Your task to perform on an android device: change the clock display to show seconds Image 0: 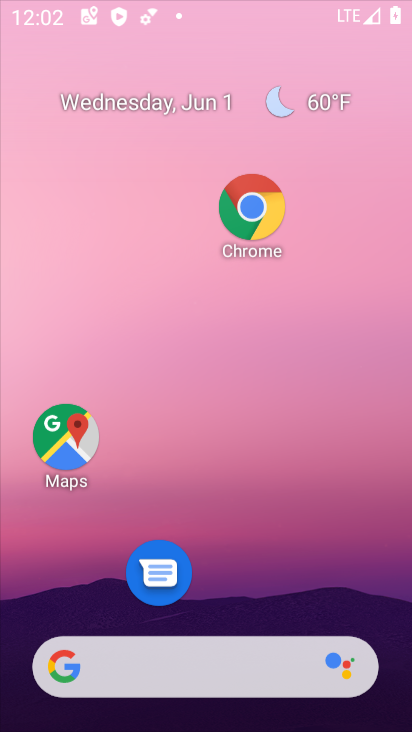
Step 0: click (197, 245)
Your task to perform on an android device: change the clock display to show seconds Image 1: 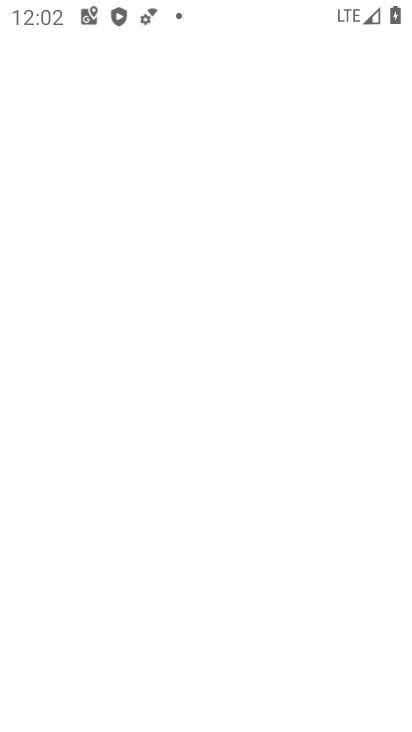
Step 1: press home button
Your task to perform on an android device: change the clock display to show seconds Image 2: 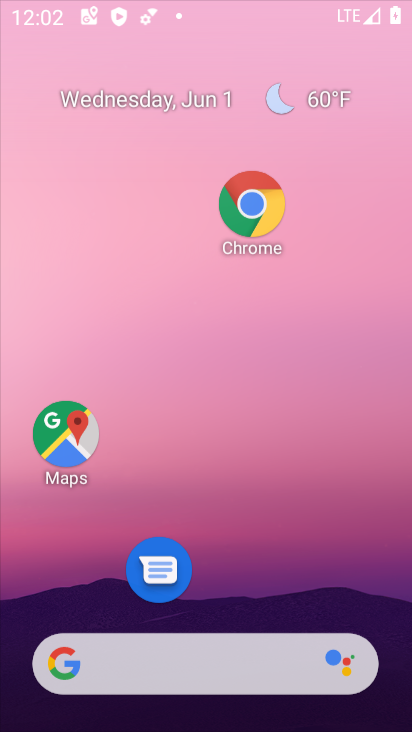
Step 2: click (196, 166)
Your task to perform on an android device: change the clock display to show seconds Image 3: 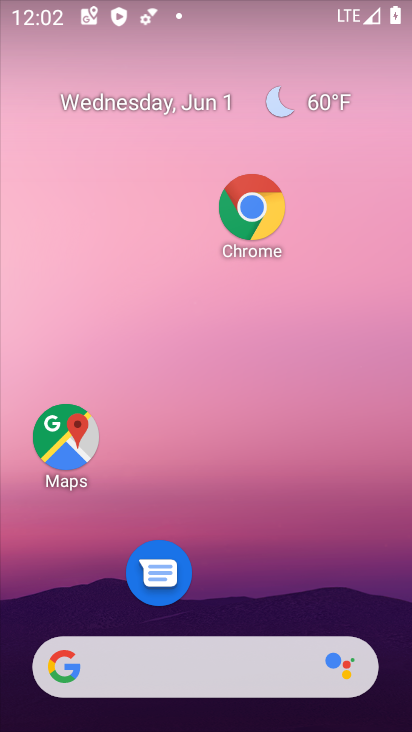
Step 3: drag from (209, 578) to (189, 119)
Your task to perform on an android device: change the clock display to show seconds Image 4: 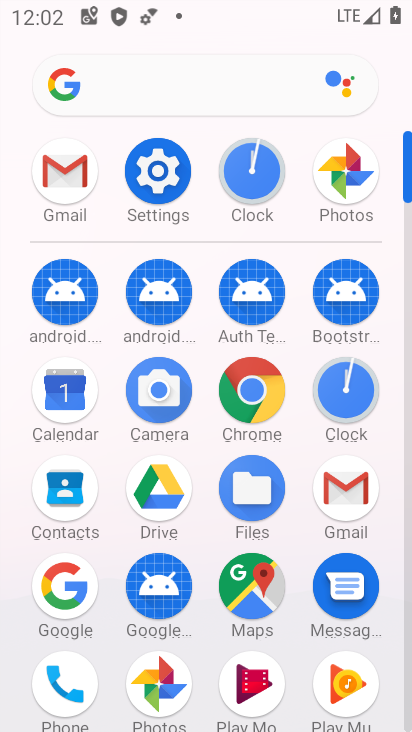
Step 4: click (340, 401)
Your task to perform on an android device: change the clock display to show seconds Image 5: 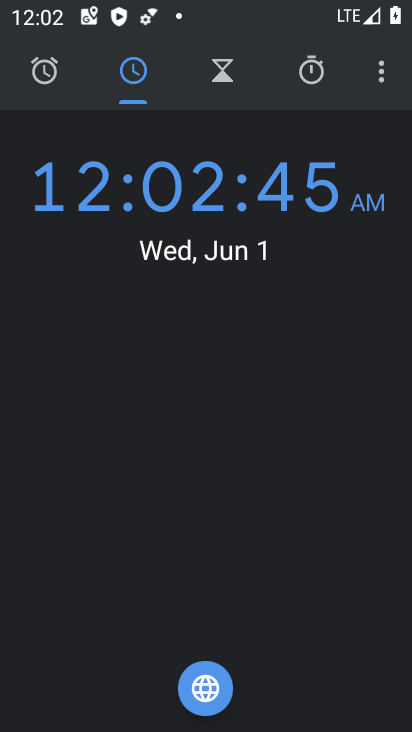
Step 5: click (376, 65)
Your task to perform on an android device: change the clock display to show seconds Image 6: 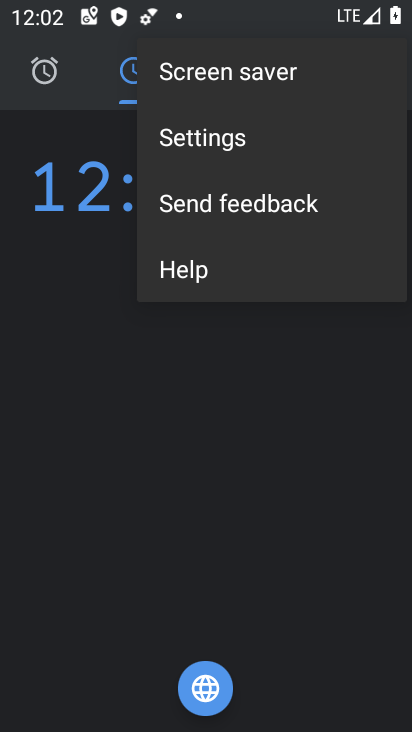
Step 6: click (313, 145)
Your task to perform on an android device: change the clock display to show seconds Image 7: 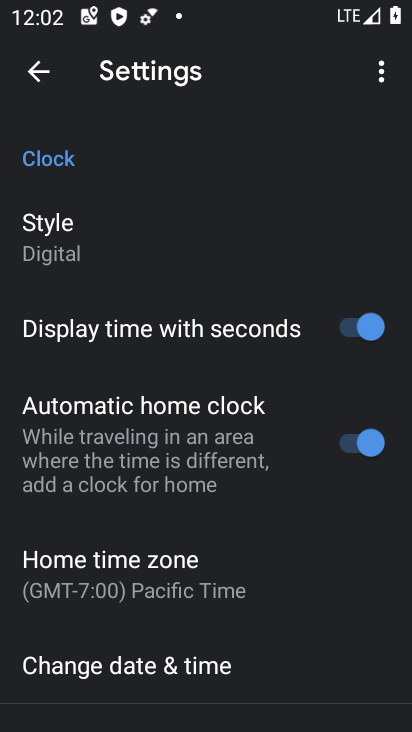
Step 7: task complete